Your task to perform on an android device: Go to settings Image 0: 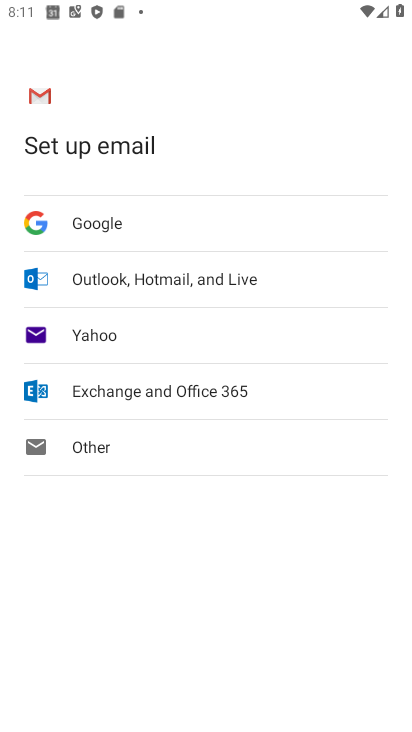
Step 0: press home button
Your task to perform on an android device: Go to settings Image 1: 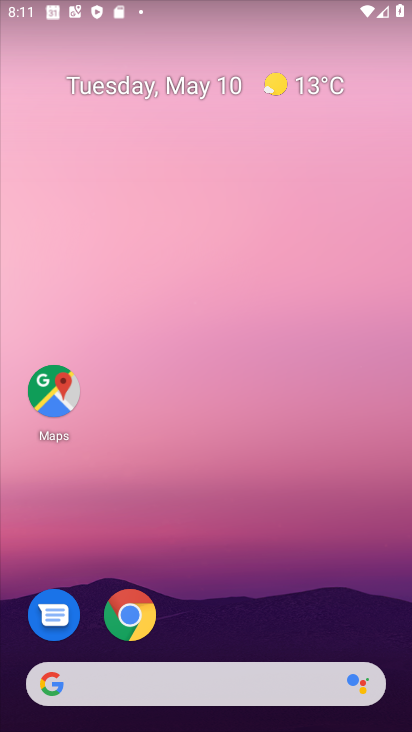
Step 1: drag from (229, 551) to (141, 48)
Your task to perform on an android device: Go to settings Image 2: 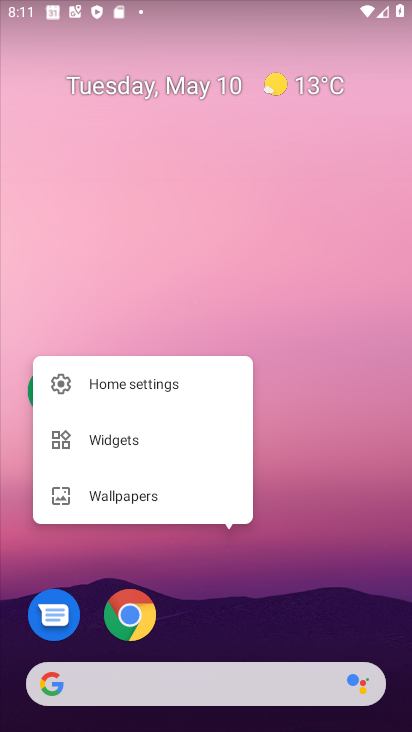
Step 2: click (292, 563)
Your task to perform on an android device: Go to settings Image 3: 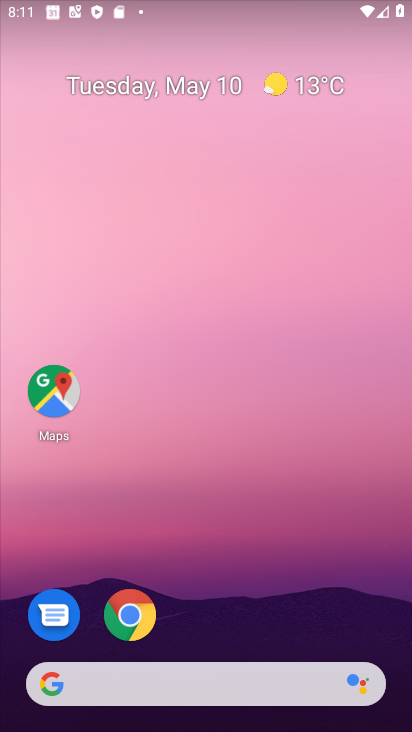
Step 3: drag from (316, 607) to (223, 209)
Your task to perform on an android device: Go to settings Image 4: 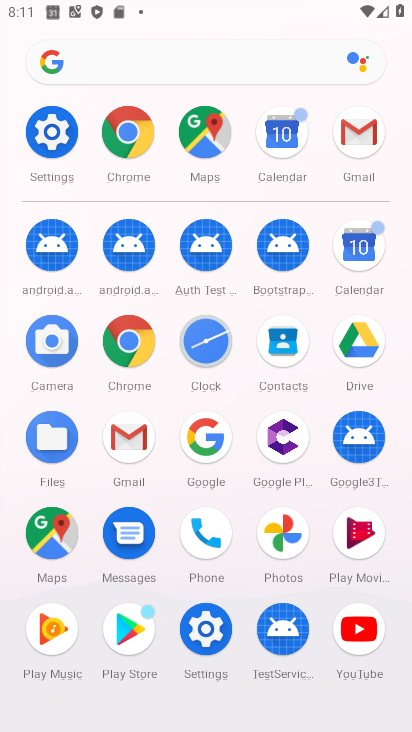
Step 4: click (51, 169)
Your task to perform on an android device: Go to settings Image 5: 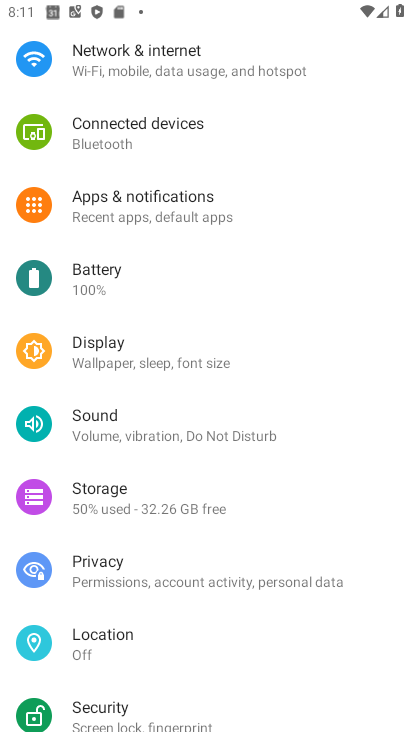
Step 5: task complete